Your task to perform on an android device: turn off improve location accuracy Image 0: 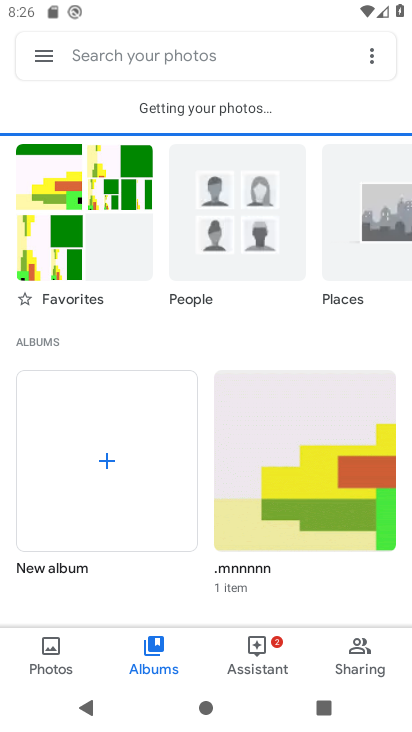
Step 0: press home button
Your task to perform on an android device: turn off improve location accuracy Image 1: 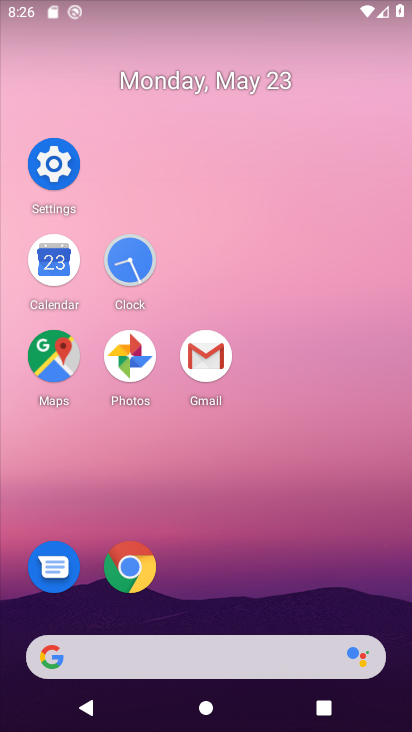
Step 1: click (47, 178)
Your task to perform on an android device: turn off improve location accuracy Image 2: 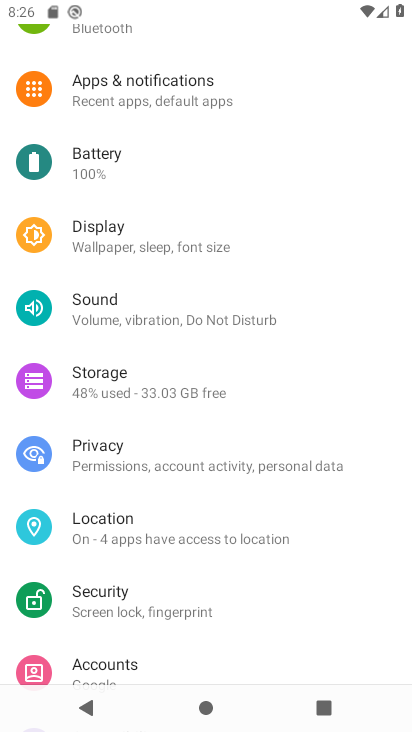
Step 2: click (193, 537)
Your task to perform on an android device: turn off improve location accuracy Image 3: 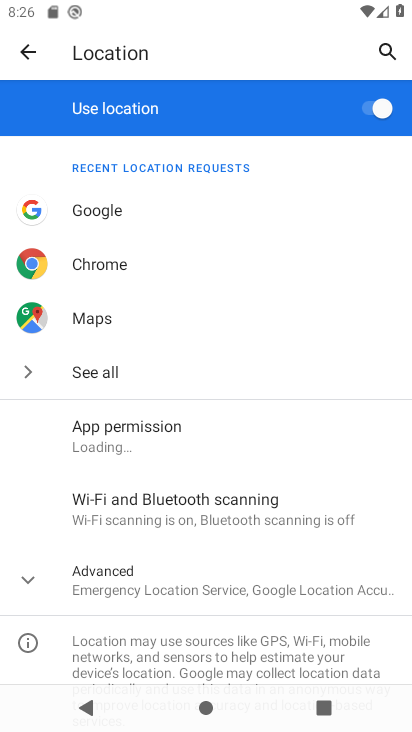
Step 3: click (162, 570)
Your task to perform on an android device: turn off improve location accuracy Image 4: 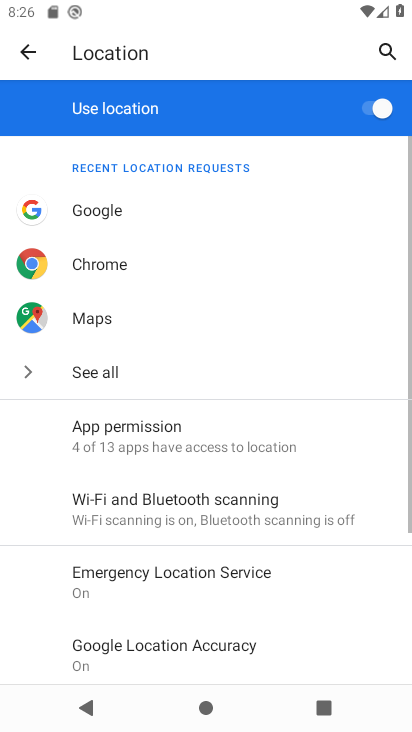
Step 4: click (164, 641)
Your task to perform on an android device: turn off improve location accuracy Image 5: 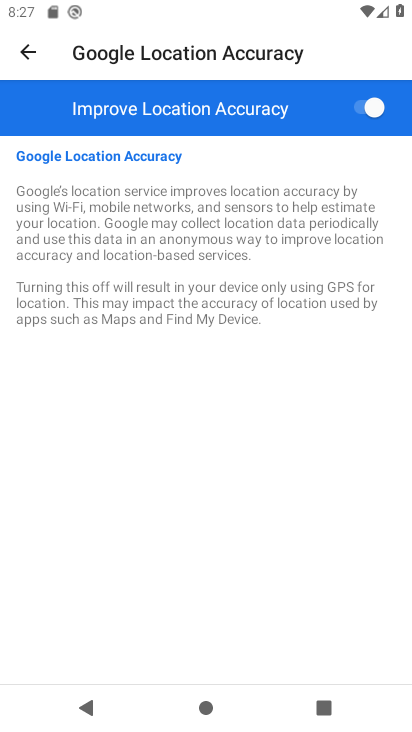
Step 5: click (384, 119)
Your task to perform on an android device: turn off improve location accuracy Image 6: 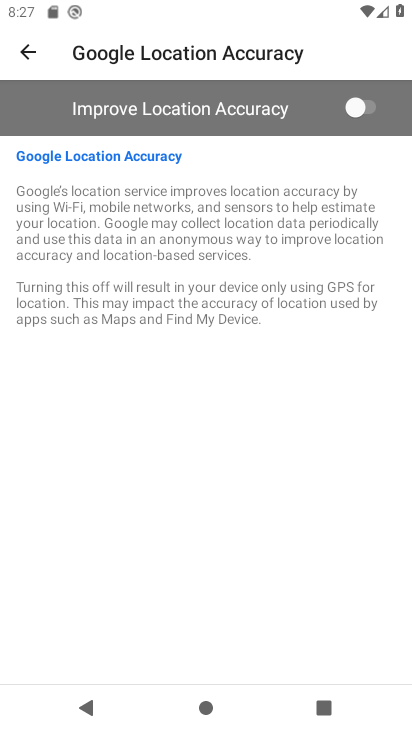
Step 6: task complete